Your task to perform on an android device: turn pop-ups off in chrome Image 0: 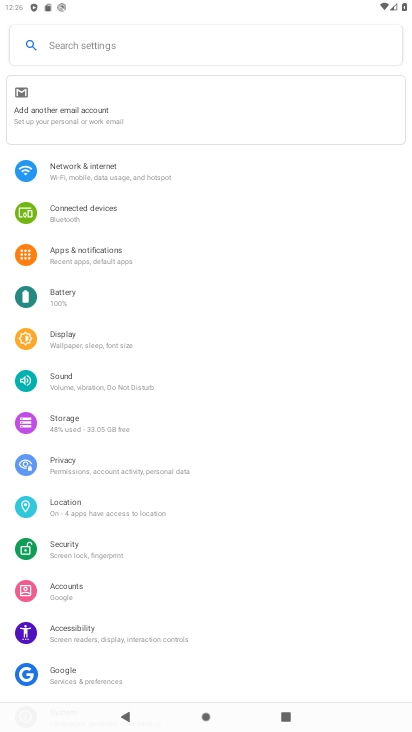
Step 0: press home button
Your task to perform on an android device: turn pop-ups off in chrome Image 1: 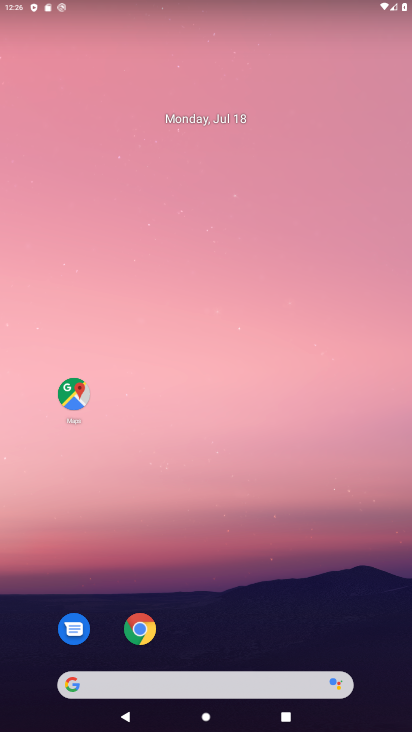
Step 1: click (144, 628)
Your task to perform on an android device: turn pop-ups off in chrome Image 2: 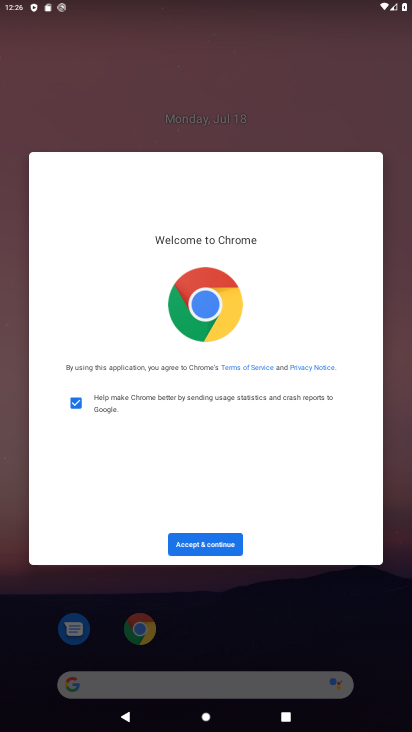
Step 2: click (224, 541)
Your task to perform on an android device: turn pop-ups off in chrome Image 3: 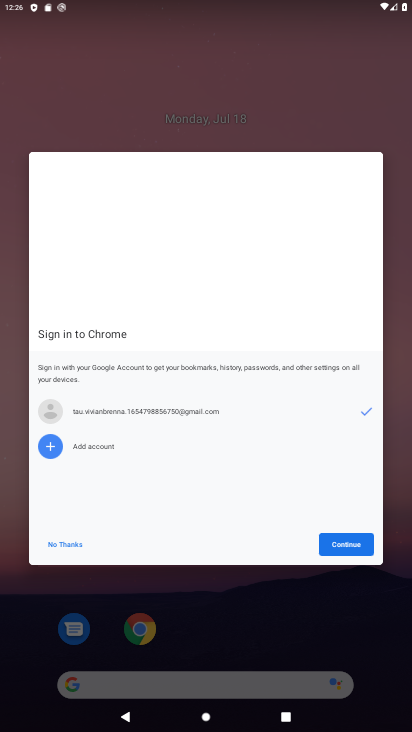
Step 3: click (345, 541)
Your task to perform on an android device: turn pop-ups off in chrome Image 4: 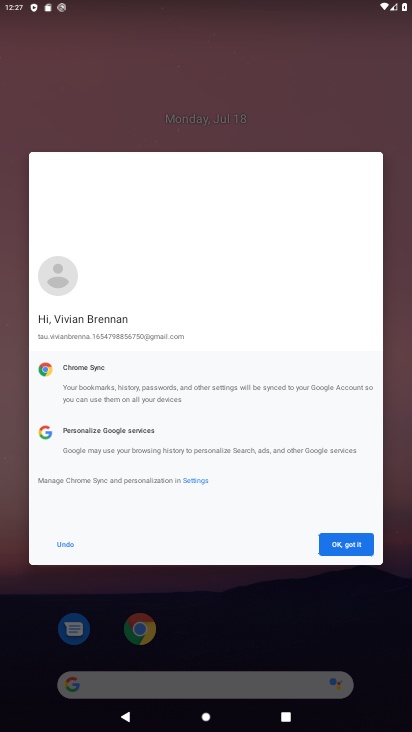
Step 4: click (361, 547)
Your task to perform on an android device: turn pop-ups off in chrome Image 5: 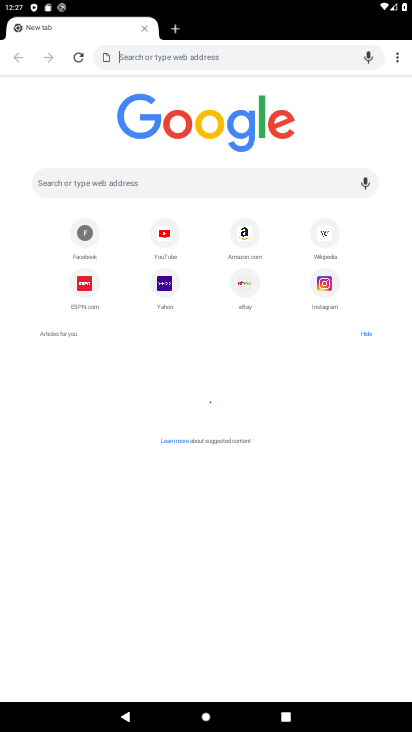
Step 5: click (398, 57)
Your task to perform on an android device: turn pop-ups off in chrome Image 6: 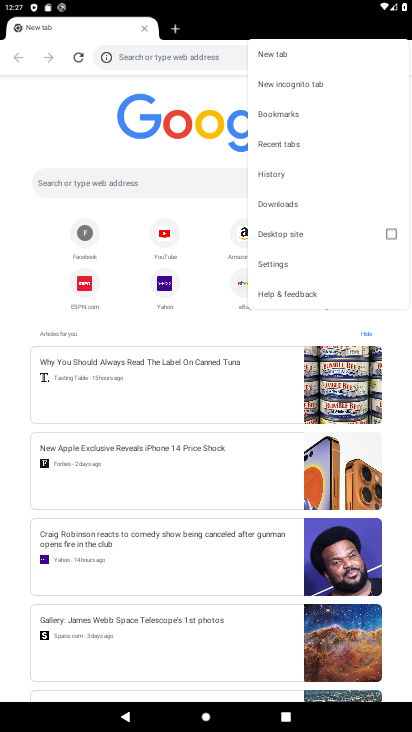
Step 6: click (283, 260)
Your task to perform on an android device: turn pop-ups off in chrome Image 7: 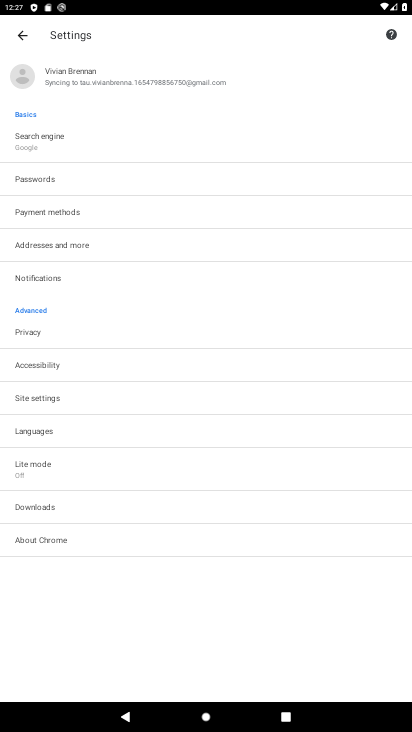
Step 7: click (57, 395)
Your task to perform on an android device: turn pop-ups off in chrome Image 8: 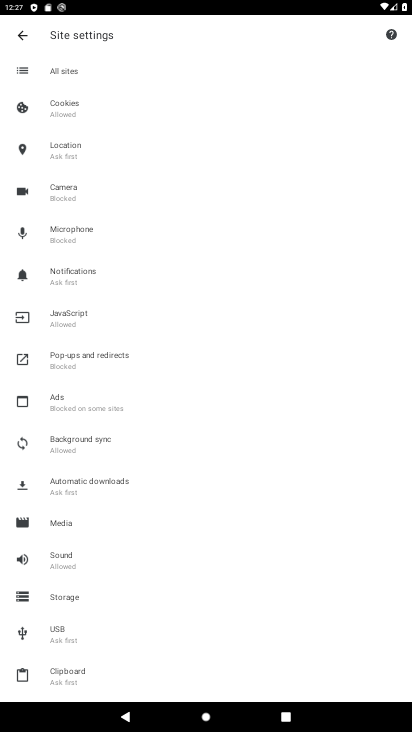
Step 8: click (94, 354)
Your task to perform on an android device: turn pop-ups off in chrome Image 9: 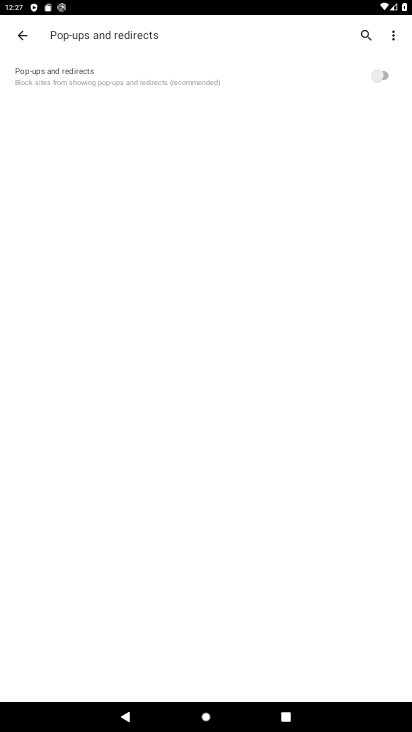
Step 9: task complete